Your task to perform on an android device: change the clock style Image 0: 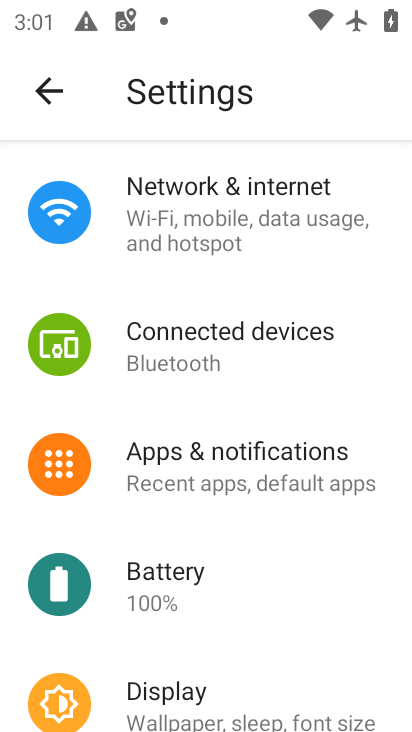
Step 0: press home button
Your task to perform on an android device: change the clock style Image 1: 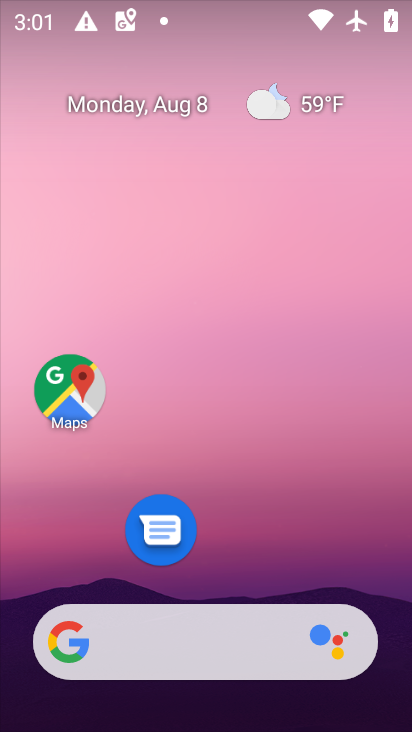
Step 1: drag from (232, 560) to (195, 145)
Your task to perform on an android device: change the clock style Image 2: 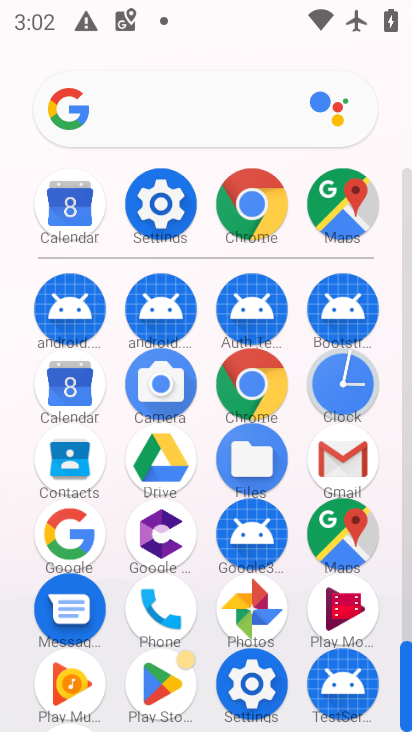
Step 2: click (350, 387)
Your task to perform on an android device: change the clock style Image 3: 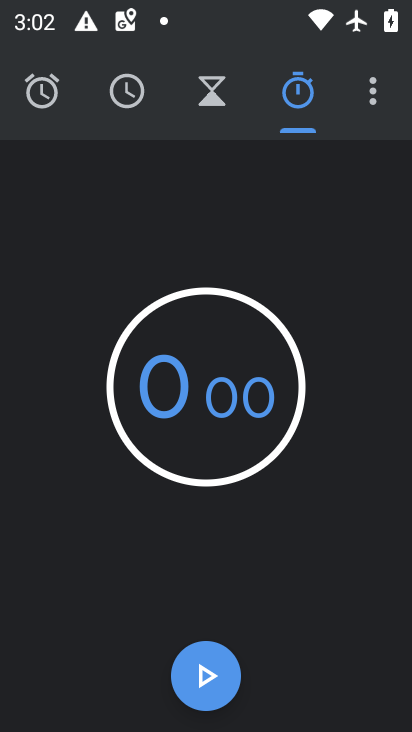
Step 3: click (374, 100)
Your task to perform on an android device: change the clock style Image 4: 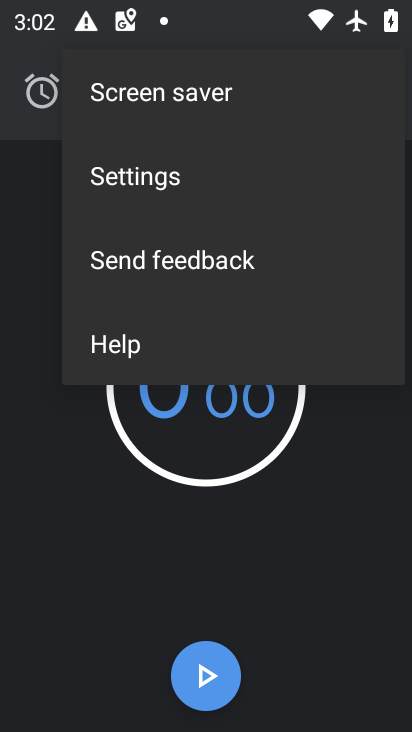
Step 4: click (170, 171)
Your task to perform on an android device: change the clock style Image 5: 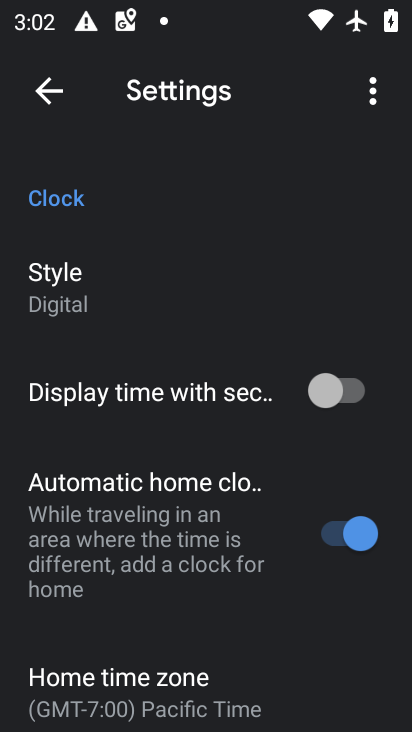
Step 5: click (63, 280)
Your task to perform on an android device: change the clock style Image 6: 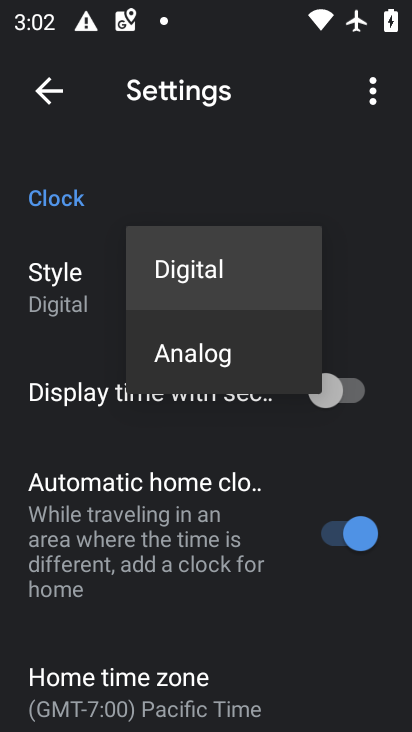
Step 6: click (199, 347)
Your task to perform on an android device: change the clock style Image 7: 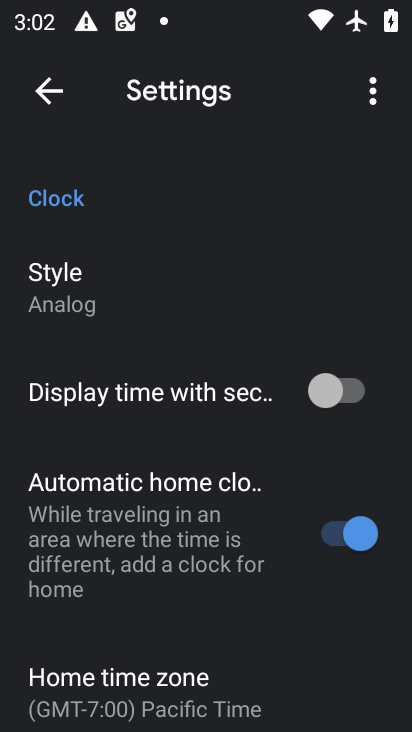
Step 7: task complete